Your task to perform on an android device: Open Youtube and go to "Your channel" Image 0: 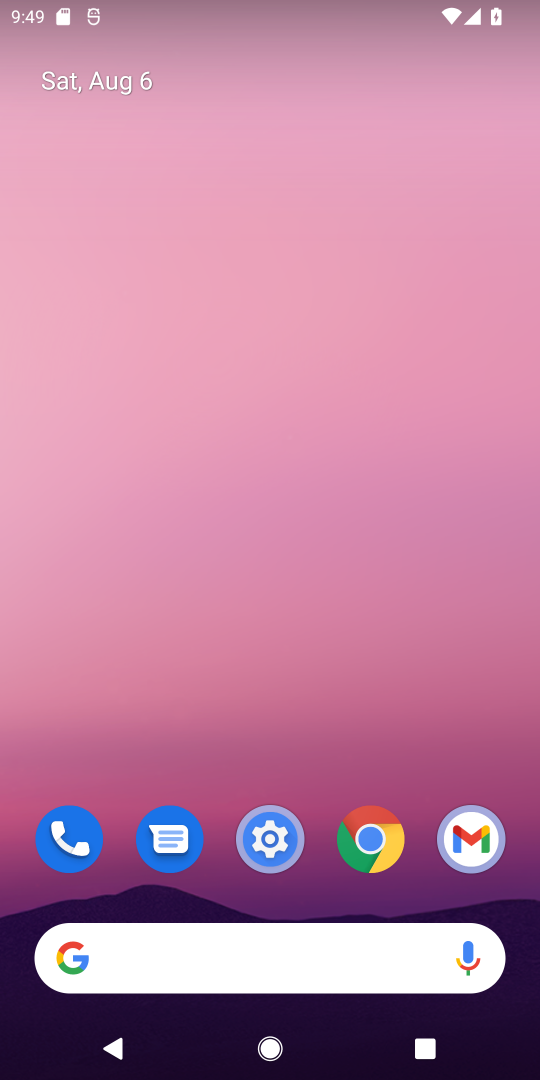
Step 0: drag from (344, 794) to (428, 193)
Your task to perform on an android device: Open Youtube and go to "Your channel" Image 1: 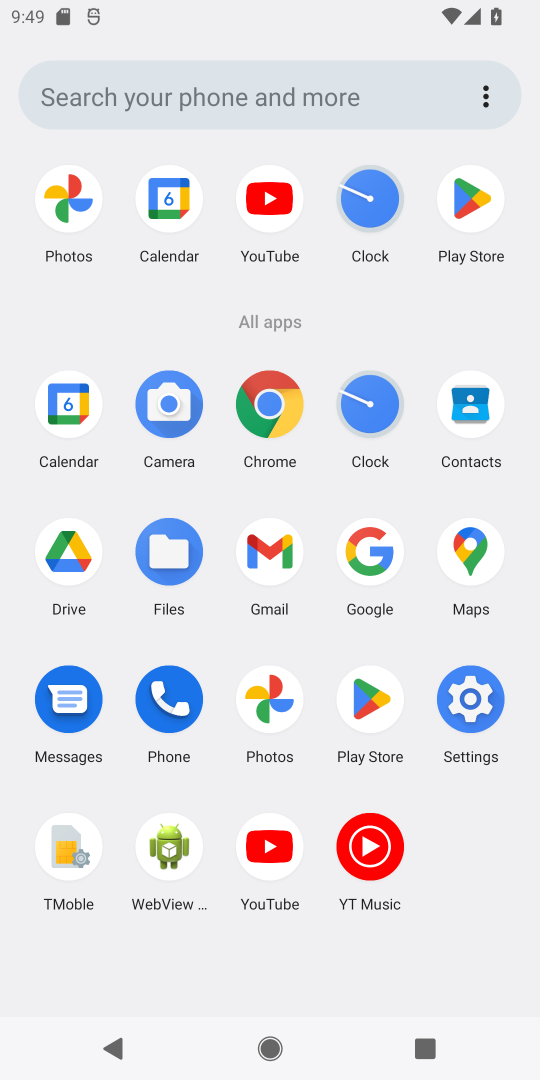
Step 1: click (267, 837)
Your task to perform on an android device: Open Youtube and go to "Your channel" Image 2: 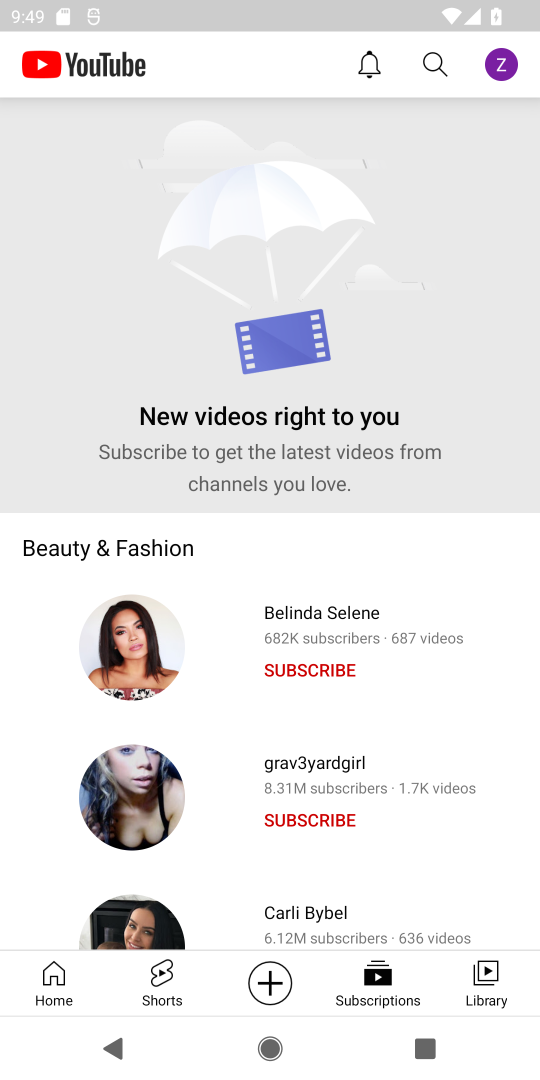
Step 2: click (491, 62)
Your task to perform on an android device: Open Youtube and go to "Your channel" Image 3: 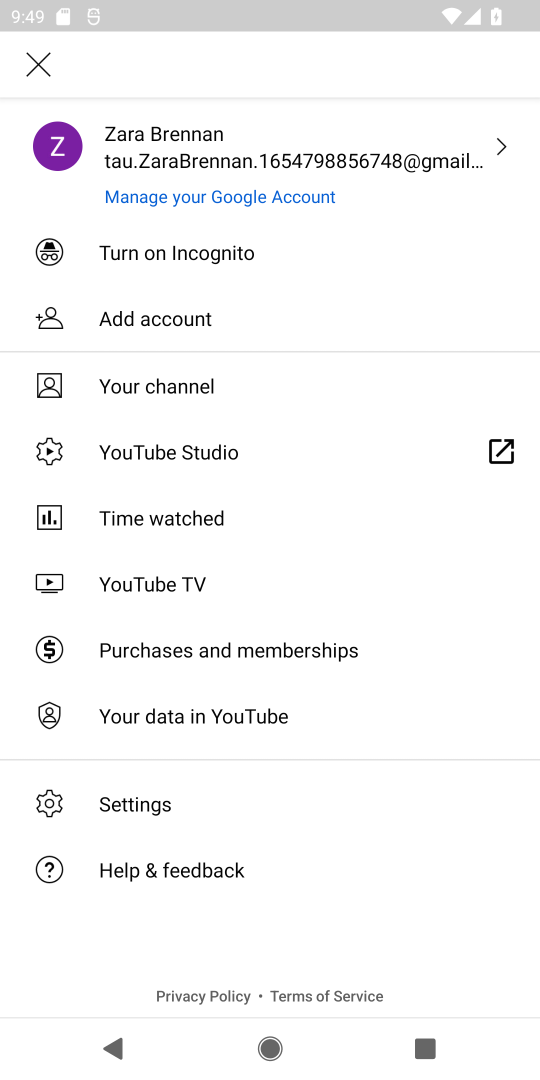
Step 3: click (205, 377)
Your task to perform on an android device: Open Youtube and go to "Your channel" Image 4: 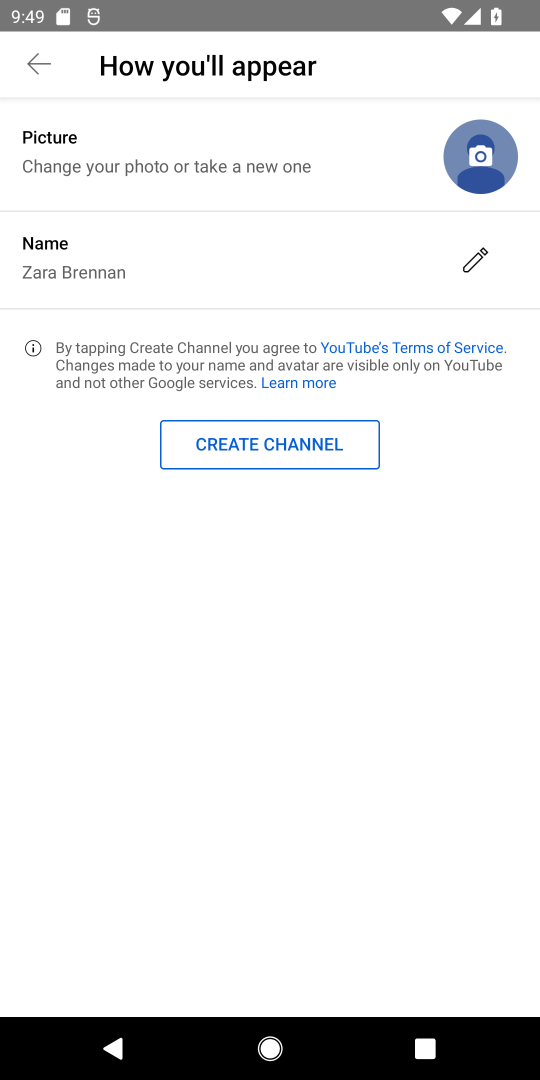
Step 4: task complete